Your task to perform on an android device: change the clock display to show seconds Image 0: 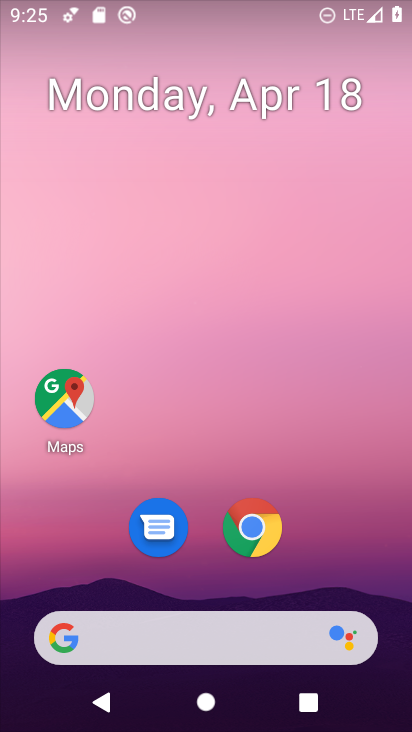
Step 0: drag from (381, 597) to (225, 33)
Your task to perform on an android device: change the clock display to show seconds Image 1: 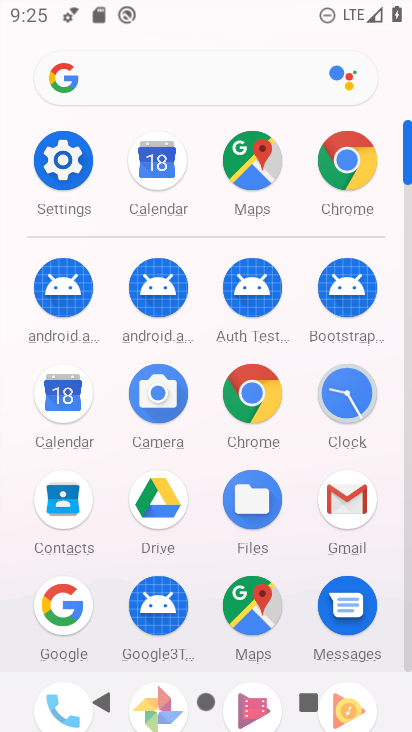
Step 1: click (346, 387)
Your task to perform on an android device: change the clock display to show seconds Image 2: 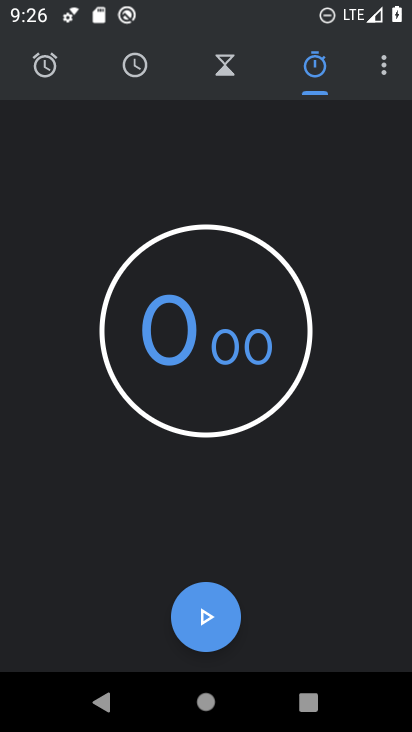
Step 2: click (41, 66)
Your task to perform on an android device: change the clock display to show seconds Image 3: 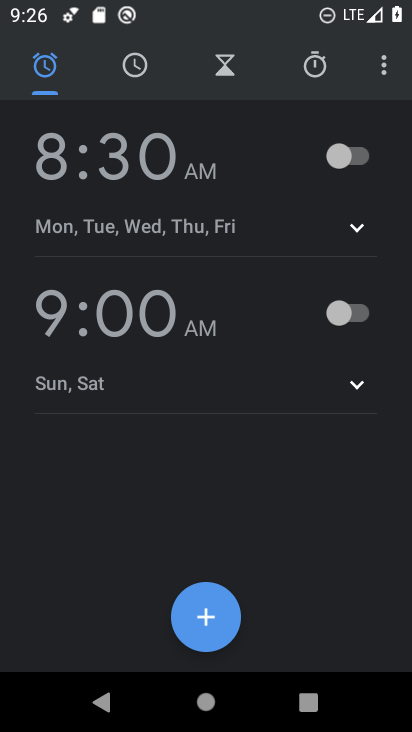
Step 3: click (388, 57)
Your task to perform on an android device: change the clock display to show seconds Image 4: 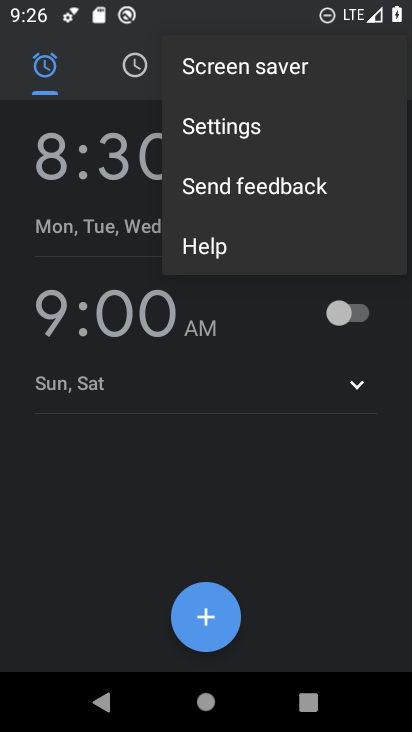
Step 4: click (213, 117)
Your task to perform on an android device: change the clock display to show seconds Image 5: 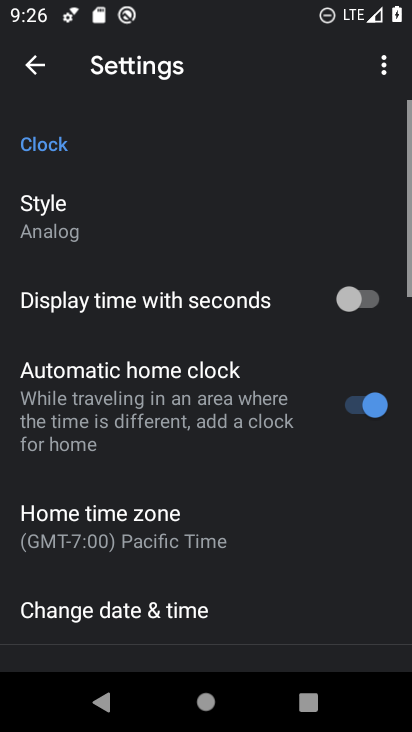
Step 5: click (89, 219)
Your task to perform on an android device: change the clock display to show seconds Image 6: 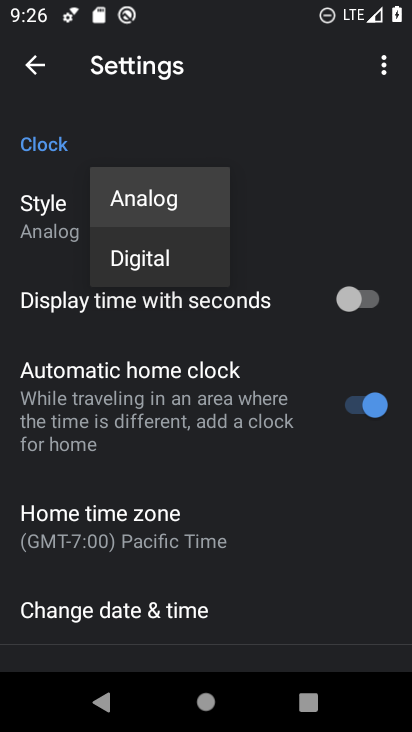
Step 6: click (291, 267)
Your task to perform on an android device: change the clock display to show seconds Image 7: 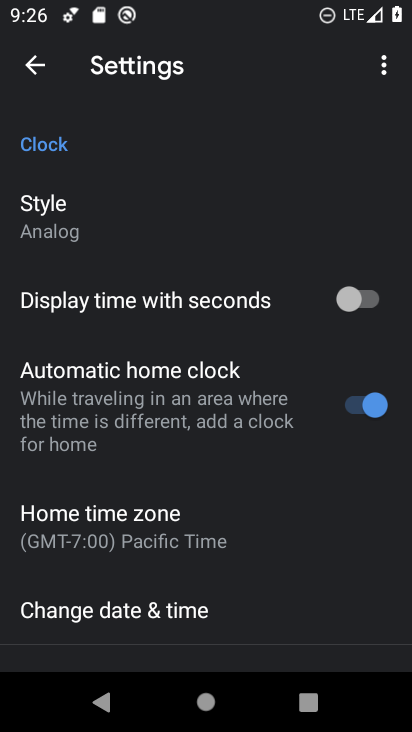
Step 7: click (369, 301)
Your task to perform on an android device: change the clock display to show seconds Image 8: 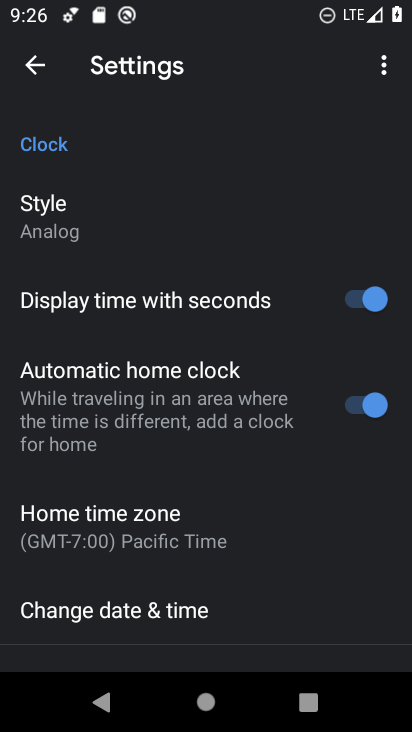
Step 8: task complete